Your task to perform on an android device: Set the phone to "Do not disturb". Image 0: 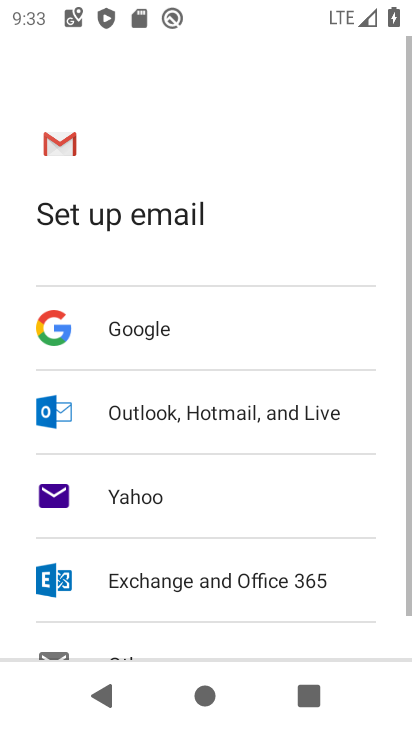
Step 0: press home button
Your task to perform on an android device: Set the phone to "Do not disturb". Image 1: 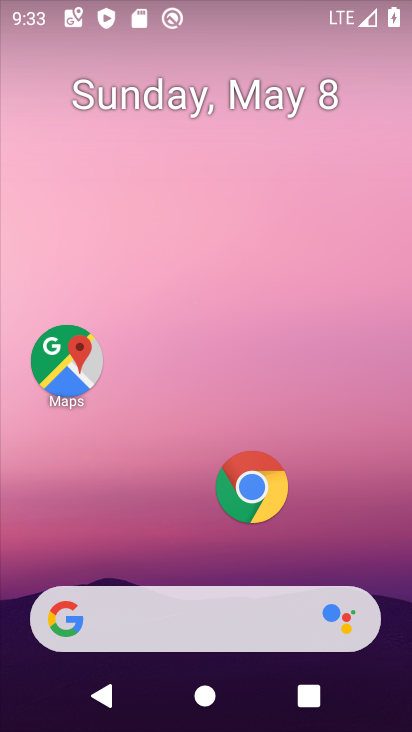
Step 1: drag from (189, 533) to (208, 114)
Your task to perform on an android device: Set the phone to "Do not disturb". Image 2: 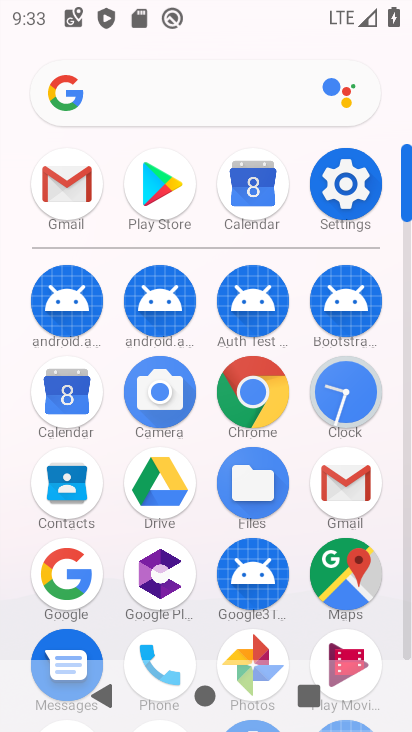
Step 2: click (323, 188)
Your task to perform on an android device: Set the phone to "Do not disturb". Image 3: 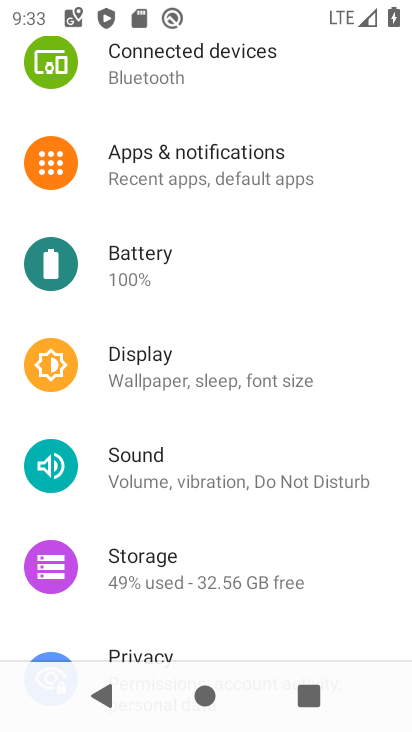
Step 3: click (221, 469)
Your task to perform on an android device: Set the phone to "Do not disturb". Image 4: 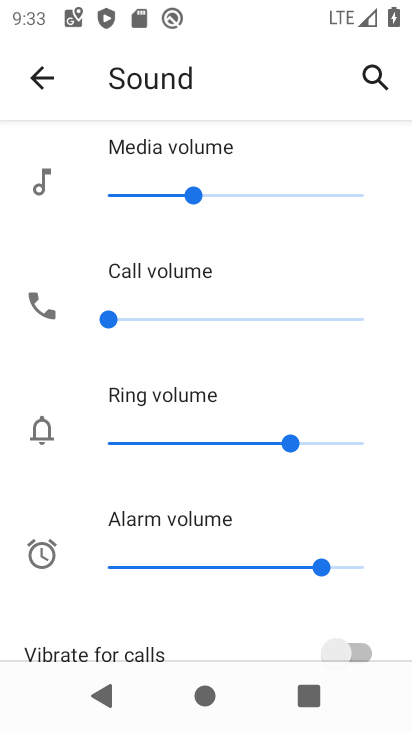
Step 4: drag from (150, 479) to (245, 146)
Your task to perform on an android device: Set the phone to "Do not disturb". Image 5: 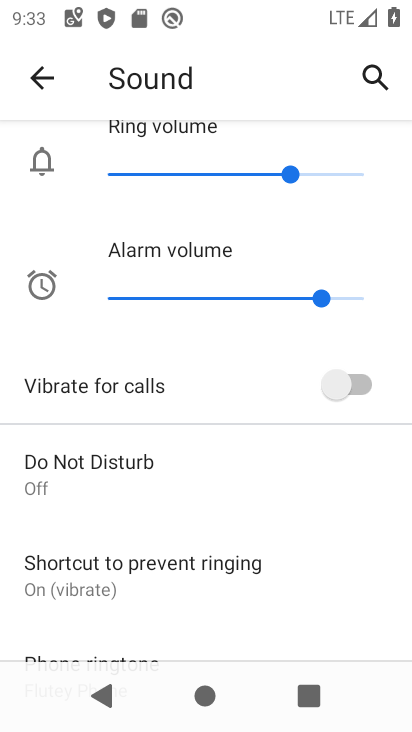
Step 5: click (75, 477)
Your task to perform on an android device: Set the phone to "Do not disturb". Image 6: 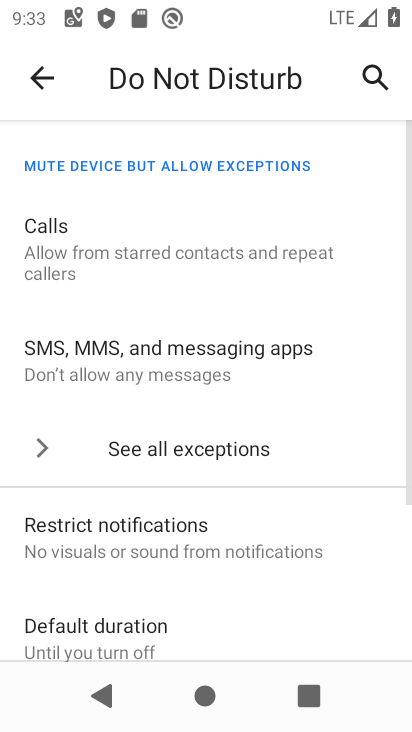
Step 6: drag from (198, 584) to (327, 120)
Your task to perform on an android device: Set the phone to "Do not disturb". Image 7: 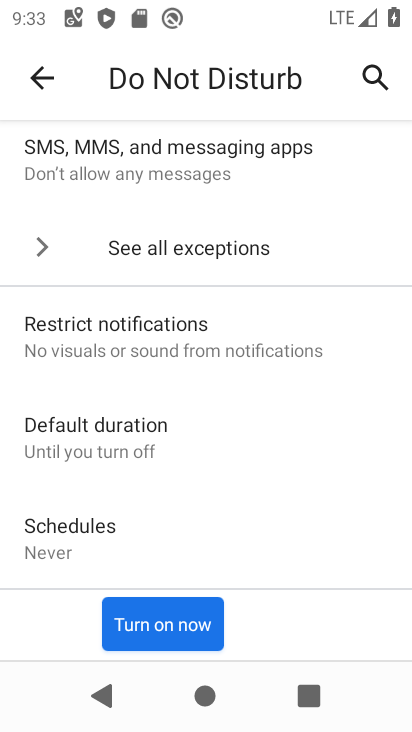
Step 7: click (170, 617)
Your task to perform on an android device: Set the phone to "Do not disturb". Image 8: 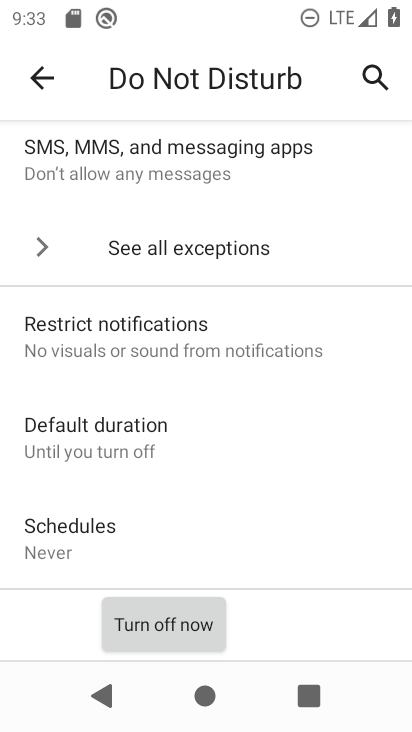
Step 8: task complete